Your task to perform on an android device: turn on bluetooth scan Image 0: 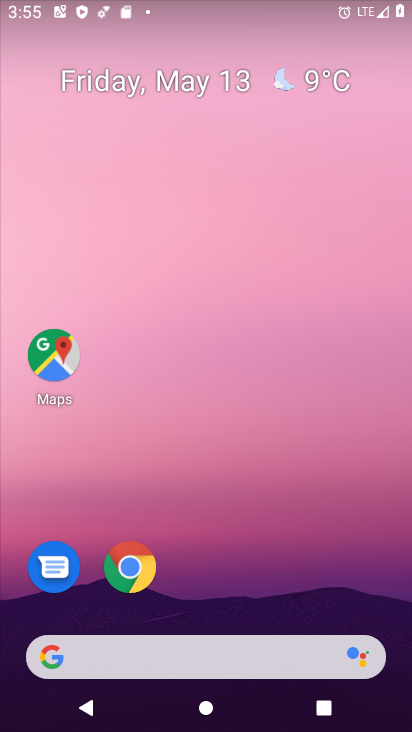
Step 0: drag from (306, 619) to (310, 7)
Your task to perform on an android device: turn on bluetooth scan Image 1: 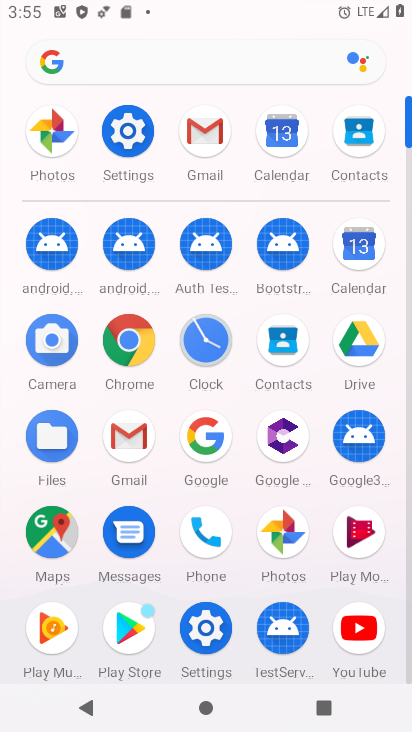
Step 1: click (129, 133)
Your task to perform on an android device: turn on bluetooth scan Image 2: 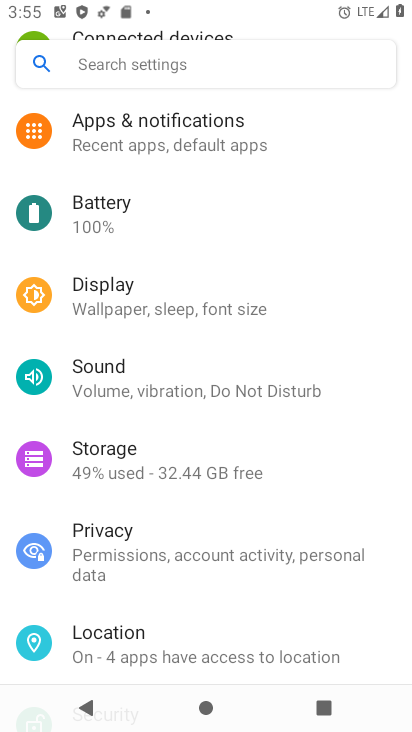
Step 2: click (113, 633)
Your task to perform on an android device: turn on bluetooth scan Image 3: 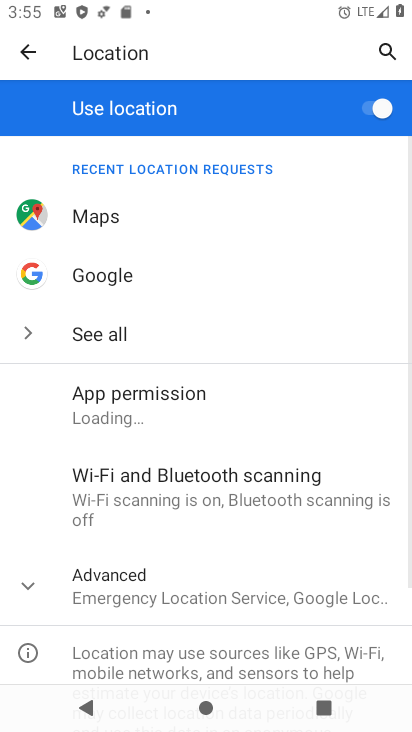
Step 3: click (182, 478)
Your task to perform on an android device: turn on bluetooth scan Image 4: 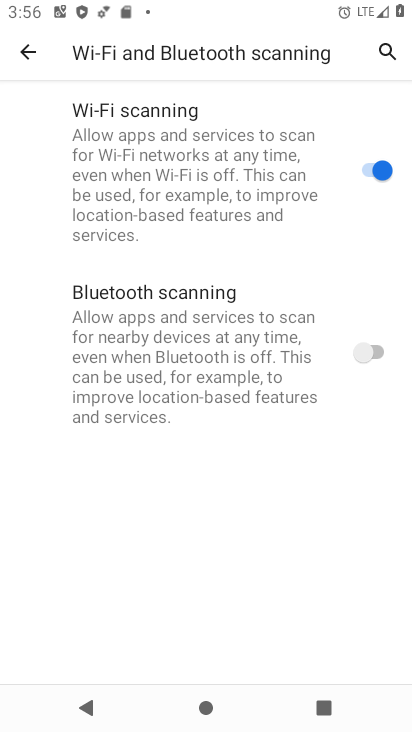
Step 4: click (363, 356)
Your task to perform on an android device: turn on bluetooth scan Image 5: 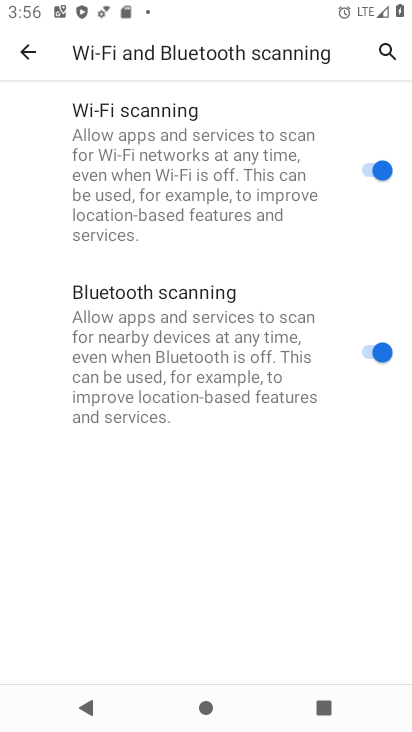
Step 5: task complete